Your task to perform on an android device: Turn on the flashlight Image 0: 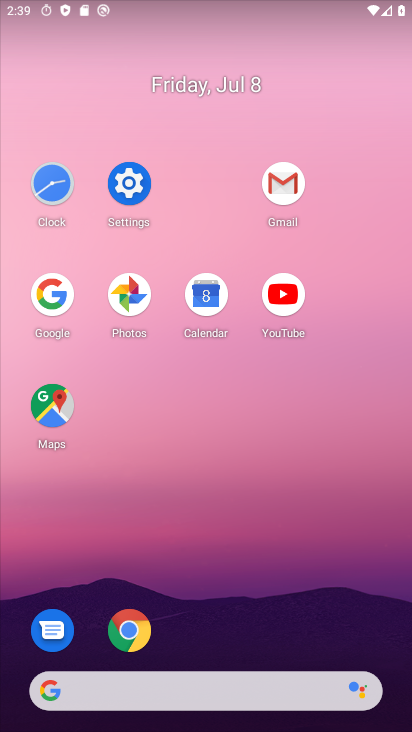
Step 0: drag from (297, 1) to (329, 459)
Your task to perform on an android device: Turn on the flashlight Image 1: 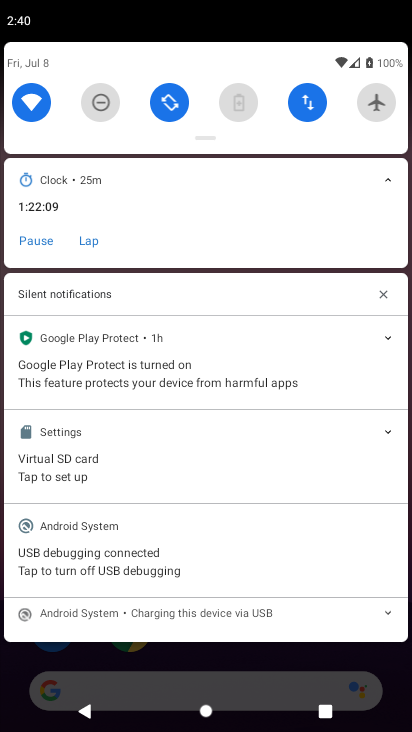
Step 1: task complete